Your task to perform on an android device: delete browsing data in the chrome app Image 0: 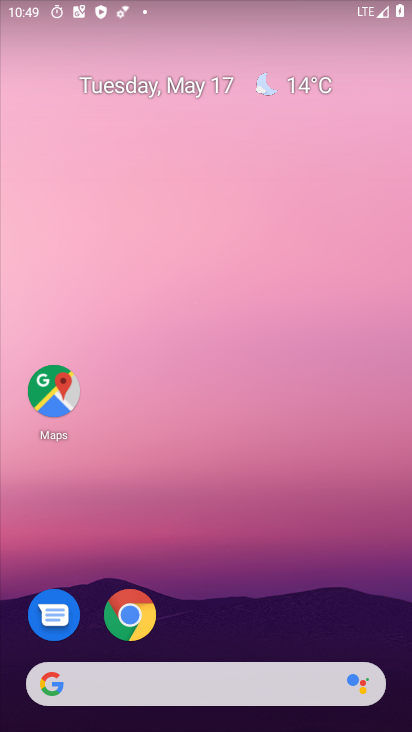
Step 0: press home button
Your task to perform on an android device: delete browsing data in the chrome app Image 1: 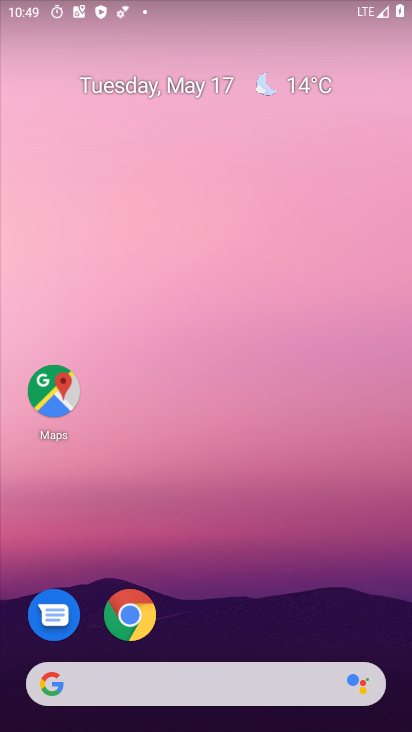
Step 1: click (122, 615)
Your task to perform on an android device: delete browsing data in the chrome app Image 2: 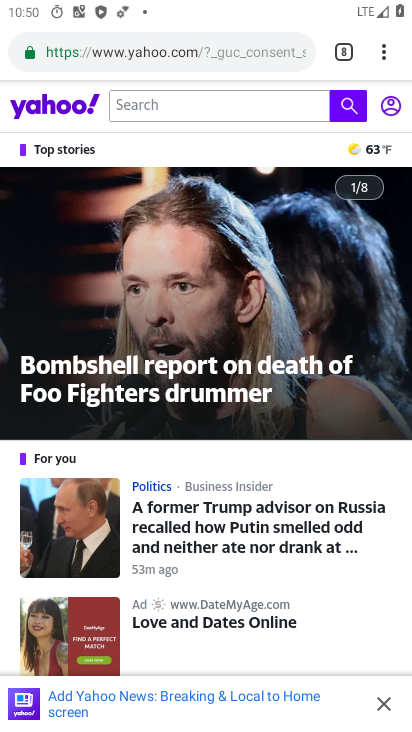
Step 2: drag from (385, 57) to (250, 644)
Your task to perform on an android device: delete browsing data in the chrome app Image 3: 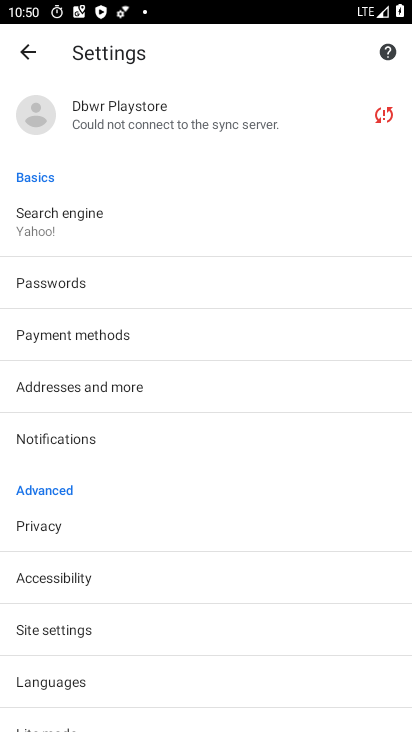
Step 3: drag from (138, 627) to (177, 551)
Your task to perform on an android device: delete browsing data in the chrome app Image 4: 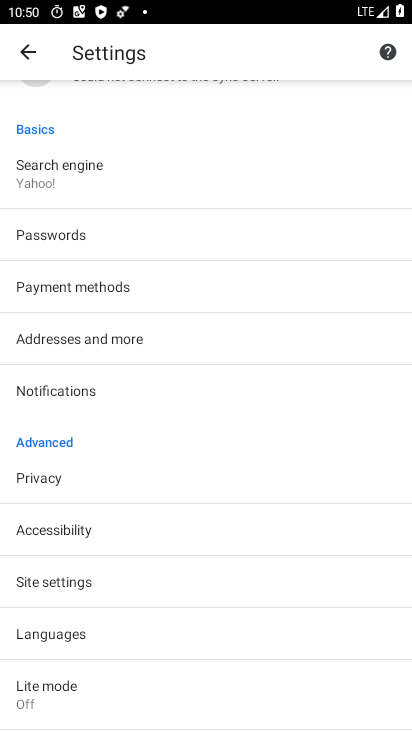
Step 4: click (55, 477)
Your task to perform on an android device: delete browsing data in the chrome app Image 5: 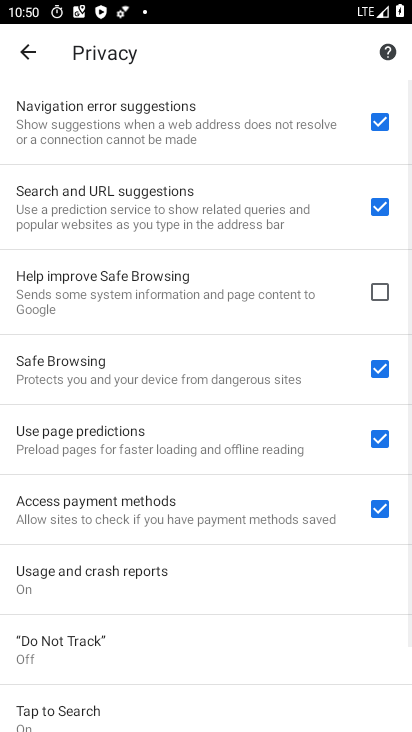
Step 5: drag from (152, 688) to (252, 103)
Your task to perform on an android device: delete browsing data in the chrome app Image 6: 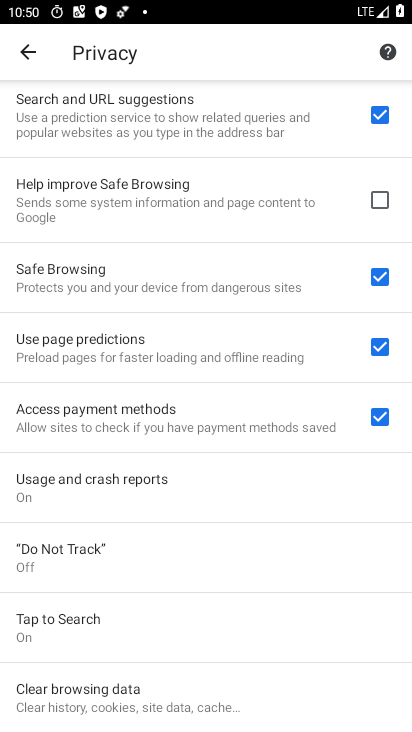
Step 6: click (128, 696)
Your task to perform on an android device: delete browsing data in the chrome app Image 7: 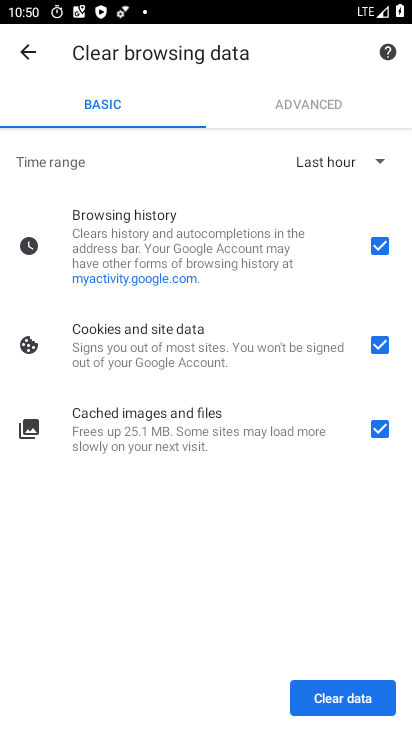
Step 7: click (331, 699)
Your task to perform on an android device: delete browsing data in the chrome app Image 8: 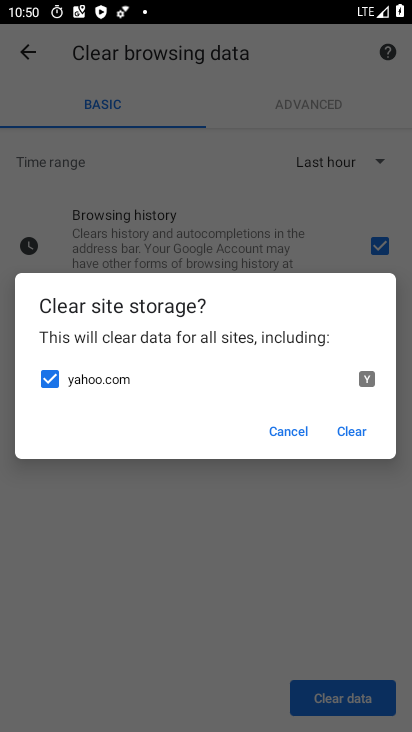
Step 8: click (361, 430)
Your task to perform on an android device: delete browsing data in the chrome app Image 9: 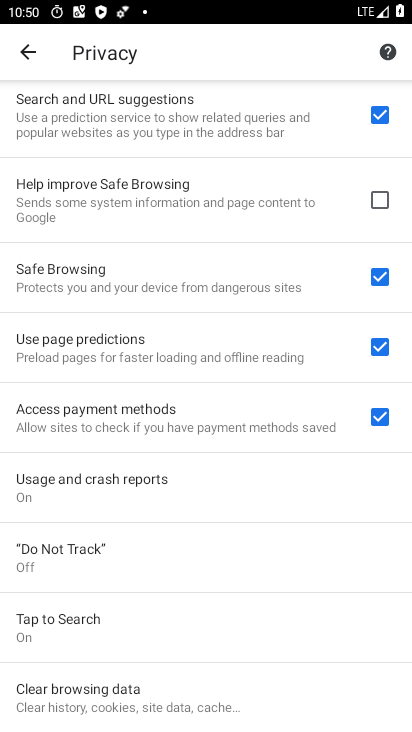
Step 9: task complete